Your task to perform on an android device: open chrome and create a bookmark for the current page Image 0: 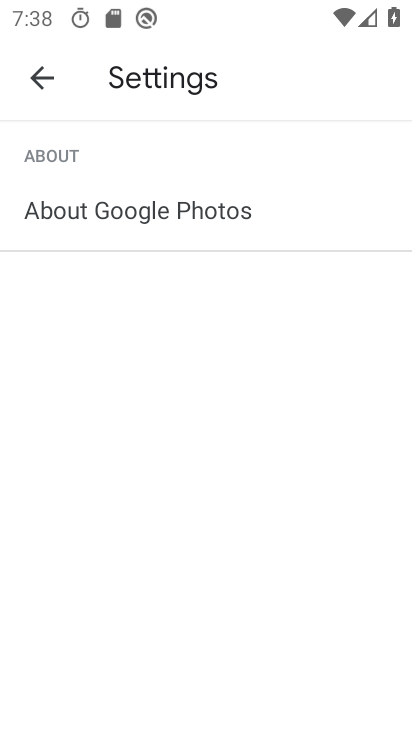
Step 0: press home button
Your task to perform on an android device: open chrome and create a bookmark for the current page Image 1: 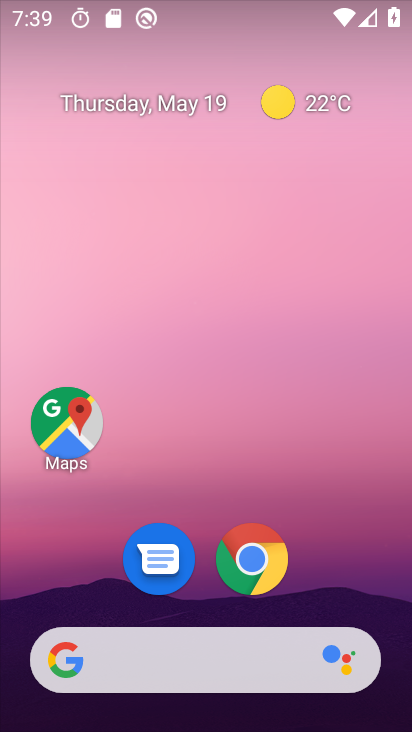
Step 1: click (249, 558)
Your task to perform on an android device: open chrome and create a bookmark for the current page Image 2: 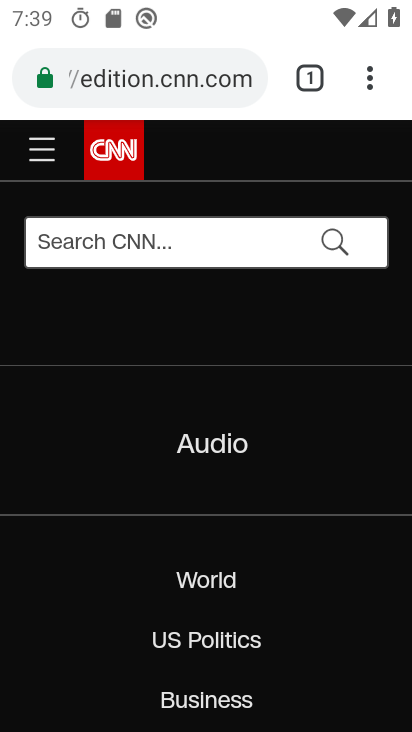
Step 2: click (371, 87)
Your task to perform on an android device: open chrome and create a bookmark for the current page Image 3: 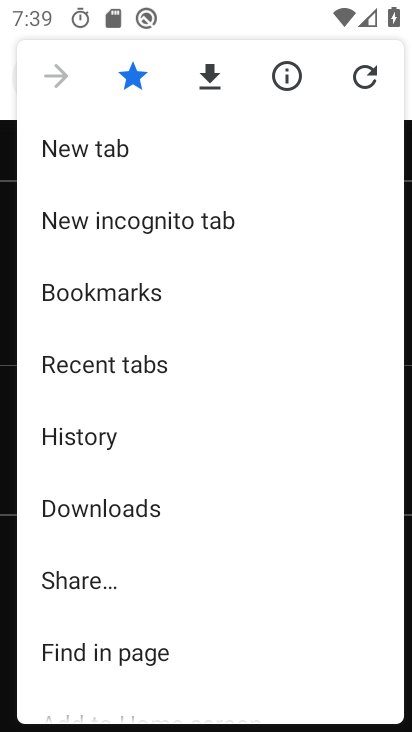
Step 3: task complete